Your task to perform on an android device: toggle translation in the chrome app Image 0: 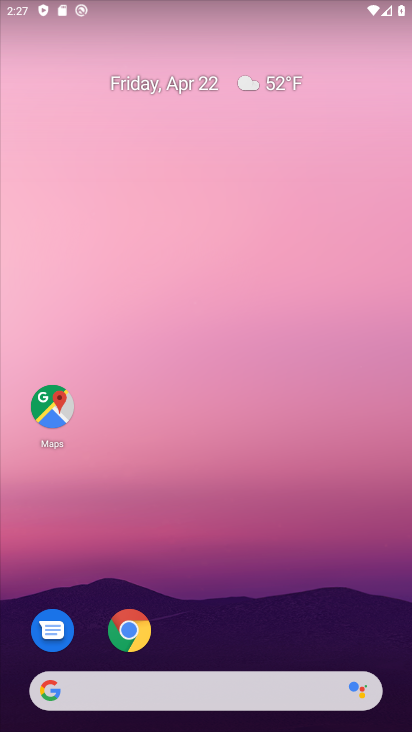
Step 0: click (130, 631)
Your task to perform on an android device: toggle translation in the chrome app Image 1: 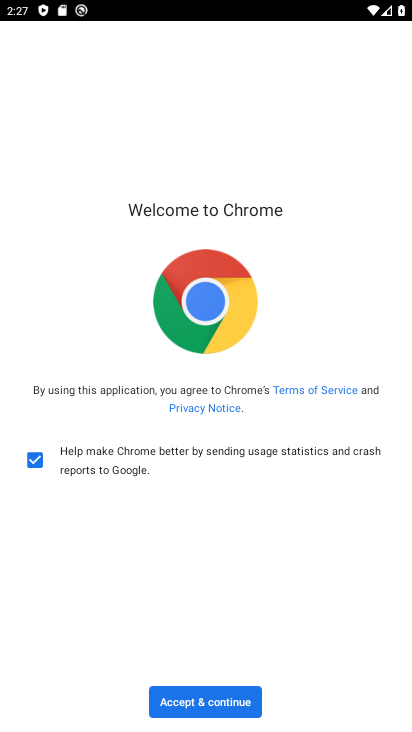
Step 1: click (203, 702)
Your task to perform on an android device: toggle translation in the chrome app Image 2: 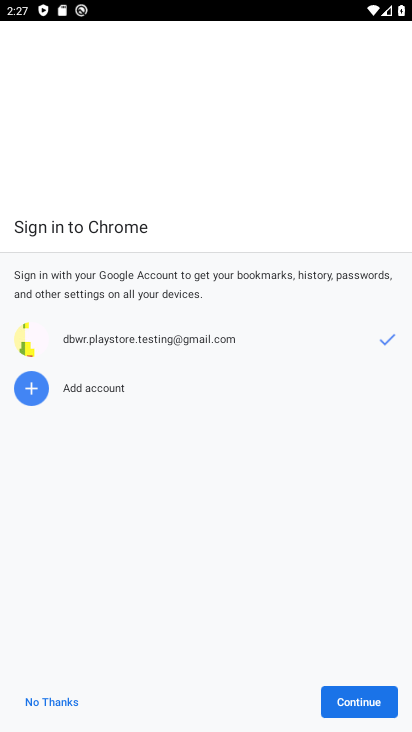
Step 2: click (362, 704)
Your task to perform on an android device: toggle translation in the chrome app Image 3: 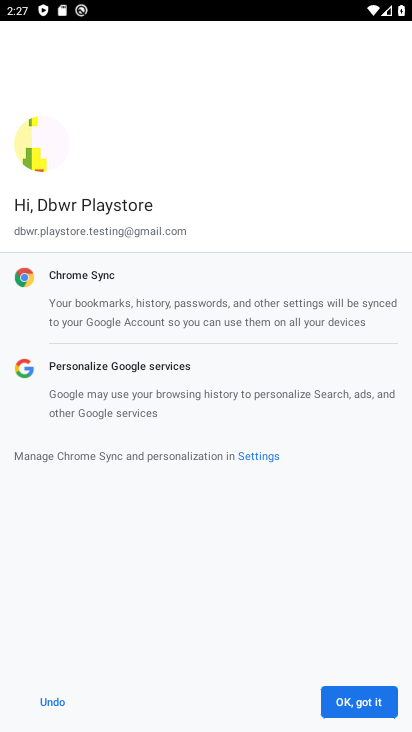
Step 3: click (362, 704)
Your task to perform on an android device: toggle translation in the chrome app Image 4: 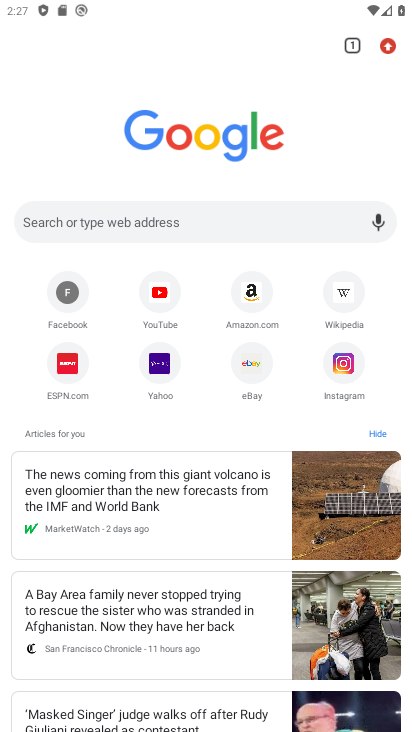
Step 4: click (385, 47)
Your task to perform on an android device: toggle translation in the chrome app Image 5: 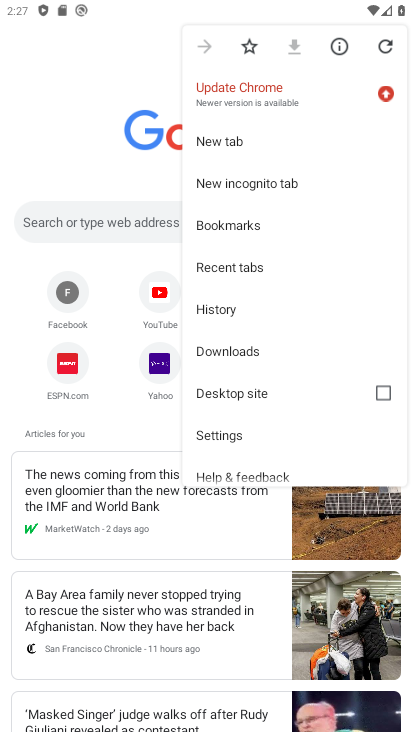
Step 5: drag from (272, 417) to (313, 150)
Your task to perform on an android device: toggle translation in the chrome app Image 6: 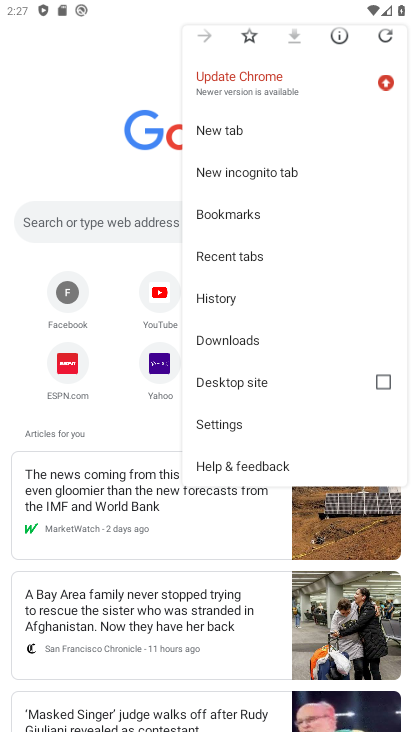
Step 6: click (230, 423)
Your task to perform on an android device: toggle translation in the chrome app Image 7: 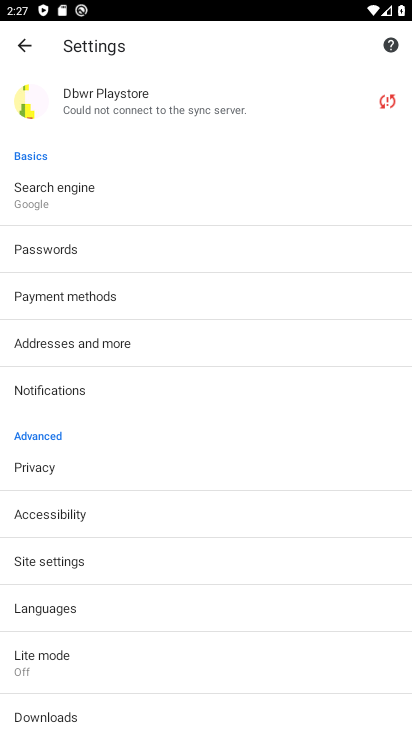
Step 7: click (51, 603)
Your task to perform on an android device: toggle translation in the chrome app Image 8: 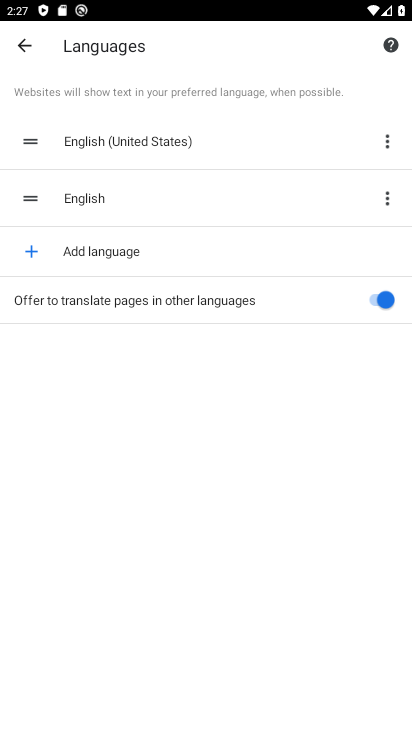
Step 8: click (376, 295)
Your task to perform on an android device: toggle translation in the chrome app Image 9: 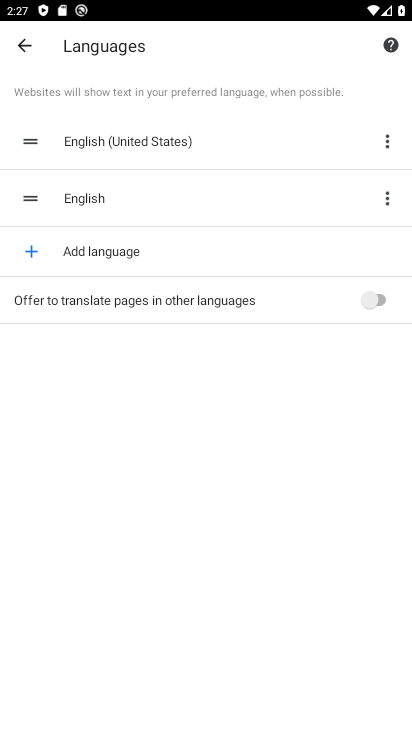
Step 9: task complete